Your task to perform on an android device: Open Yahoo.com Image 0: 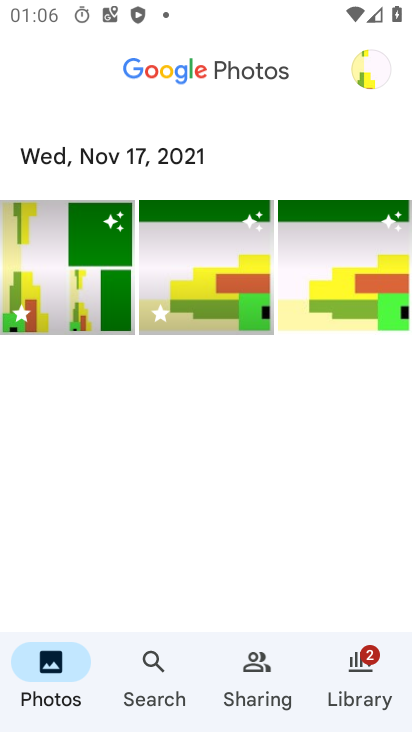
Step 0: press home button
Your task to perform on an android device: Open Yahoo.com Image 1: 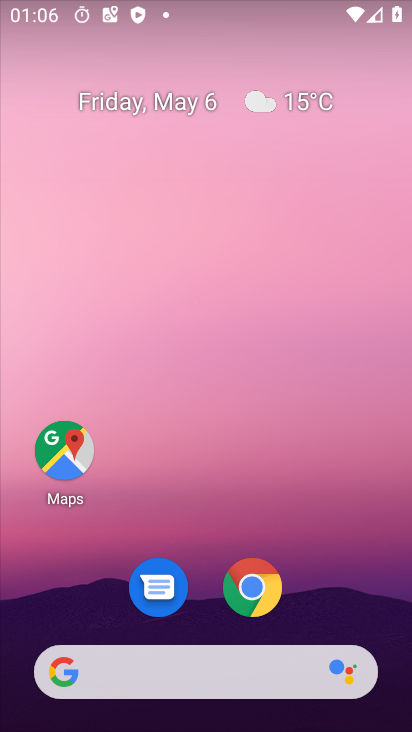
Step 1: click (259, 588)
Your task to perform on an android device: Open Yahoo.com Image 2: 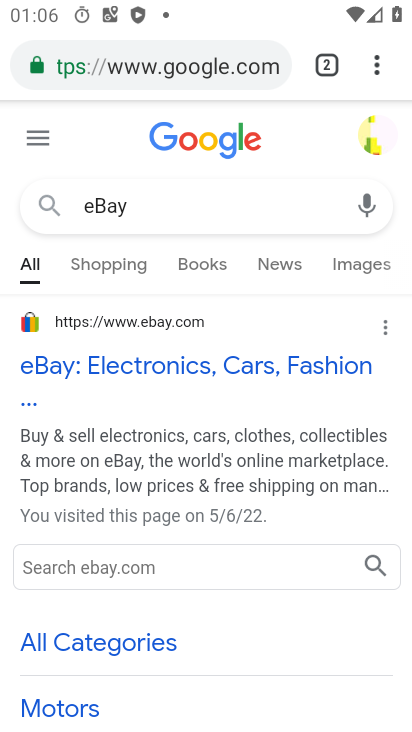
Step 2: click (278, 70)
Your task to perform on an android device: Open Yahoo.com Image 3: 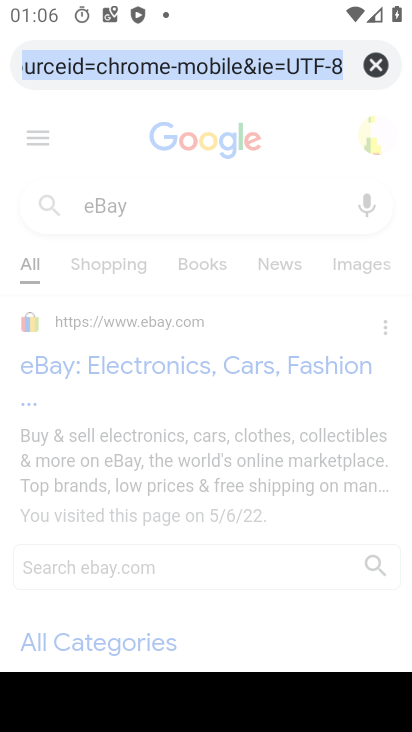
Step 3: click (367, 67)
Your task to perform on an android device: Open Yahoo.com Image 4: 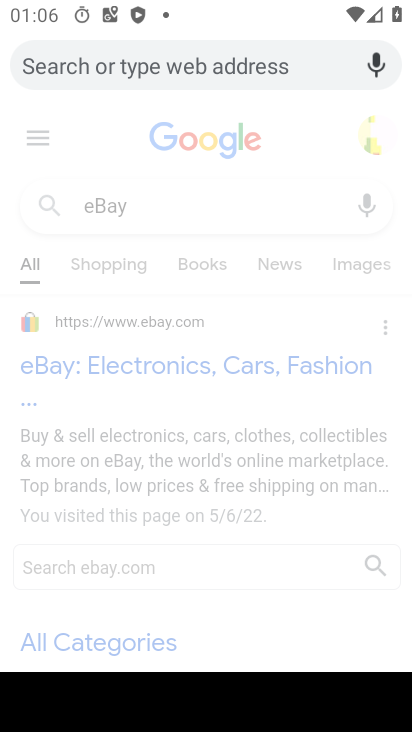
Step 4: type " Yahoo.com"
Your task to perform on an android device: Open Yahoo.com Image 5: 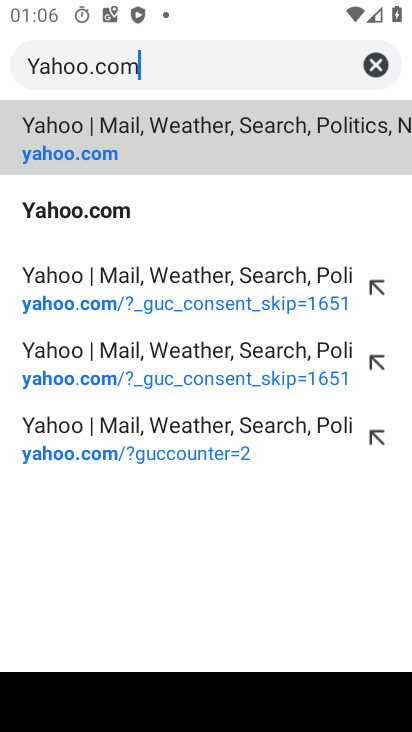
Step 5: click (93, 209)
Your task to perform on an android device: Open Yahoo.com Image 6: 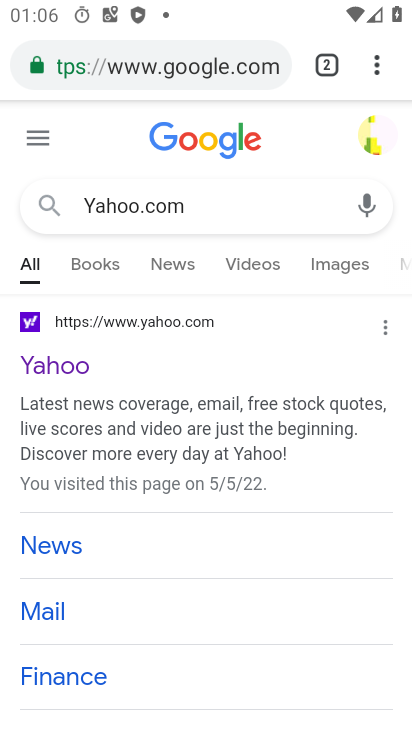
Step 6: task complete